Your task to perform on an android device: Show me productivity apps on the Play Store Image 0: 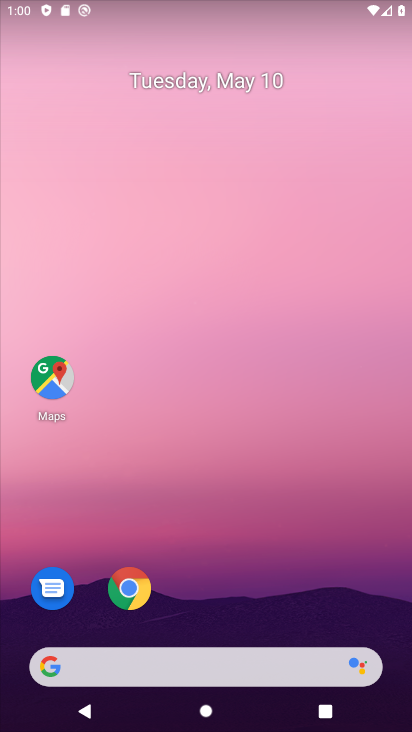
Step 0: drag from (245, 691) to (260, 123)
Your task to perform on an android device: Show me productivity apps on the Play Store Image 1: 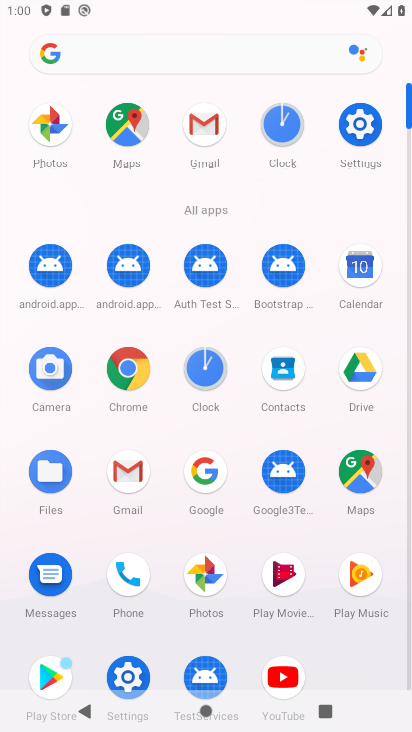
Step 1: click (49, 674)
Your task to perform on an android device: Show me productivity apps on the Play Store Image 2: 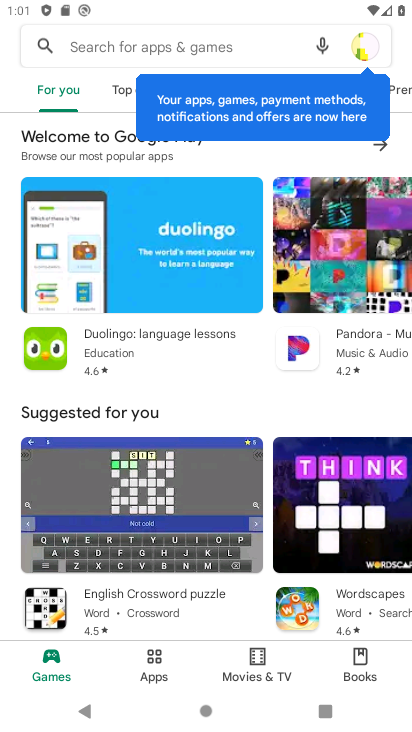
Step 2: click (186, 54)
Your task to perform on an android device: Show me productivity apps on the Play Store Image 3: 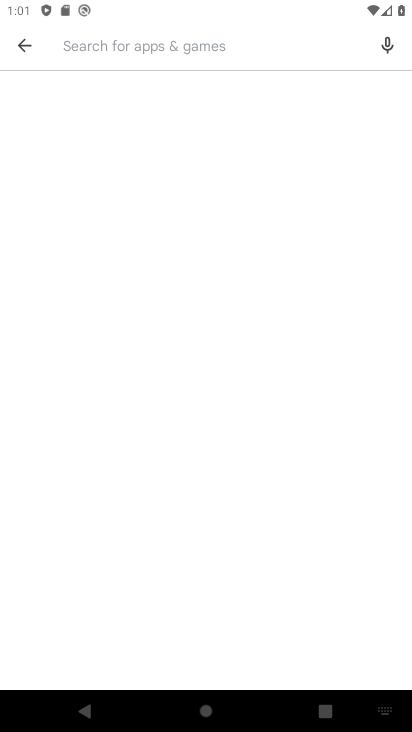
Step 3: click (391, 651)
Your task to perform on an android device: Show me productivity apps on the Play Store Image 4: 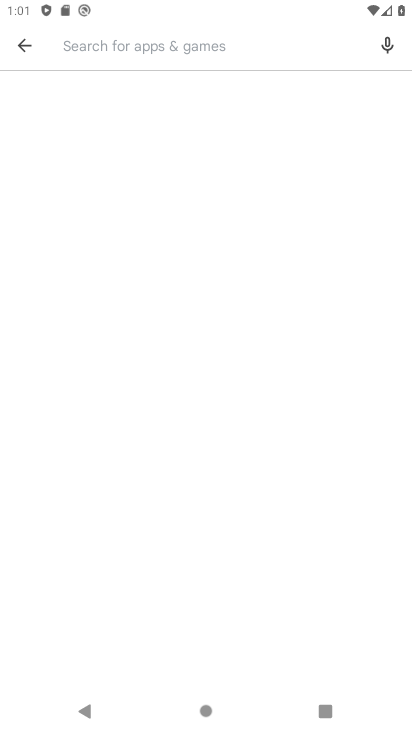
Step 4: click (264, 47)
Your task to perform on an android device: Show me productivity apps on the Play Store Image 5: 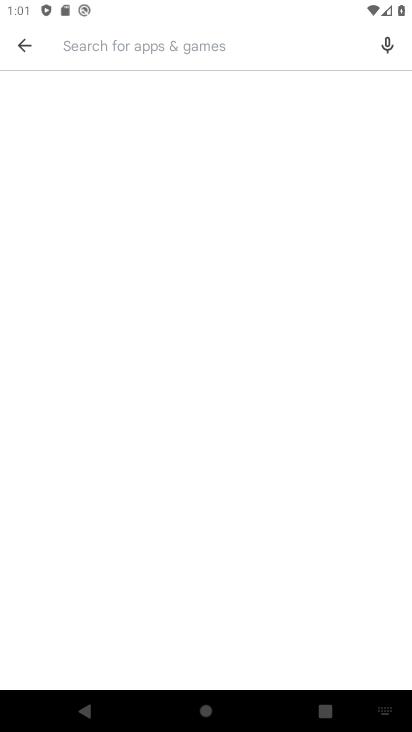
Step 5: drag from (368, 718) to (374, 664)
Your task to perform on an android device: Show me productivity apps on the Play Store Image 6: 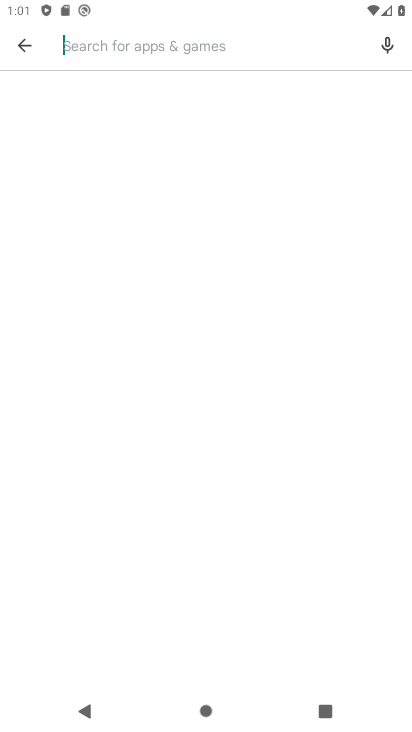
Step 6: click (387, 720)
Your task to perform on an android device: Show me productivity apps on the Play Store Image 7: 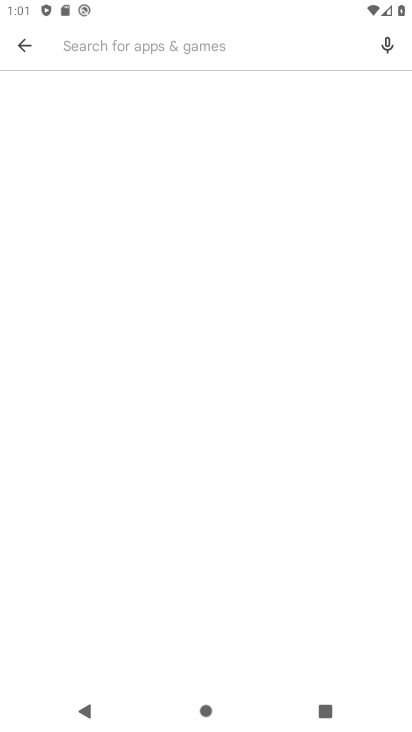
Step 7: drag from (383, 705) to (411, 594)
Your task to perform on an android device: Show me productivity apps on the Play Store Image 8: 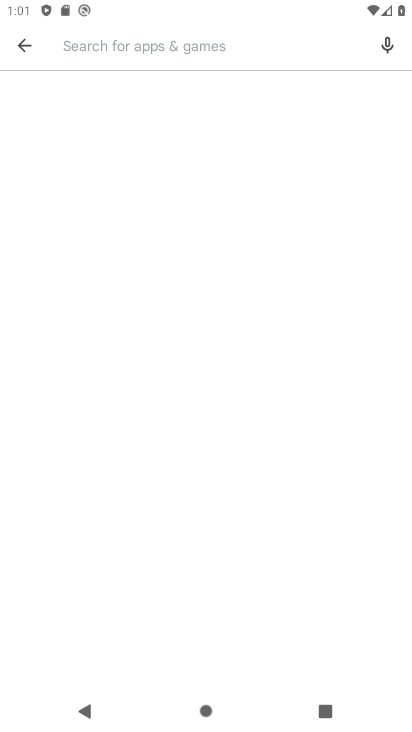
Step 8: drag from (403, 714) to (409, 507)
Your task to perform on an android device: Show me productivity apps on the Play Store Image 9: 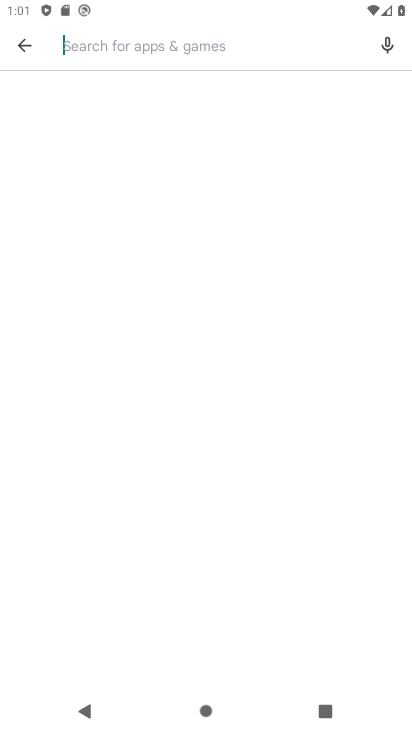
Step 9: click (182, 49)
Your task to perform on an android device: Show me productivity apps on the Play Store Image 10: 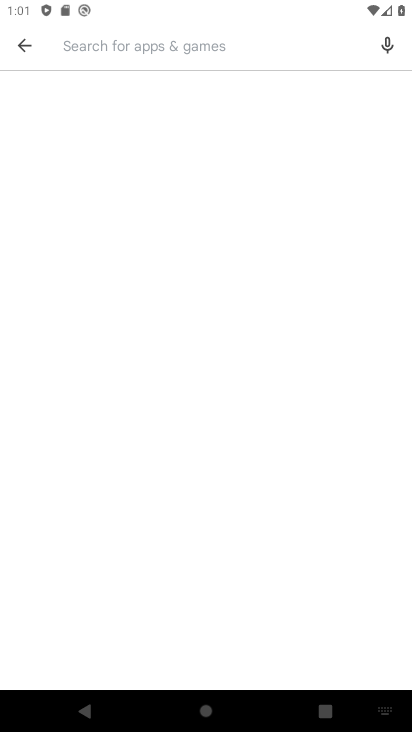
Step 10: click (378, 716)
Your task to perform on an android device: Show me productivity apps on the Play Store Image 11: 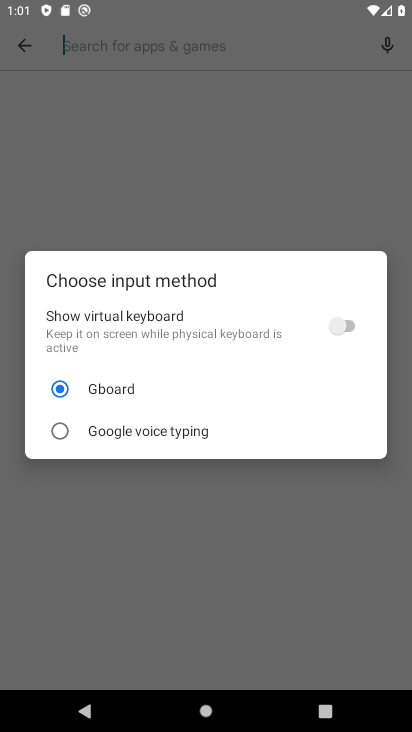
Step 11: click (345, 325)
Your task to perform on an android device: Show me productivity apps on the Play Store Image 12: 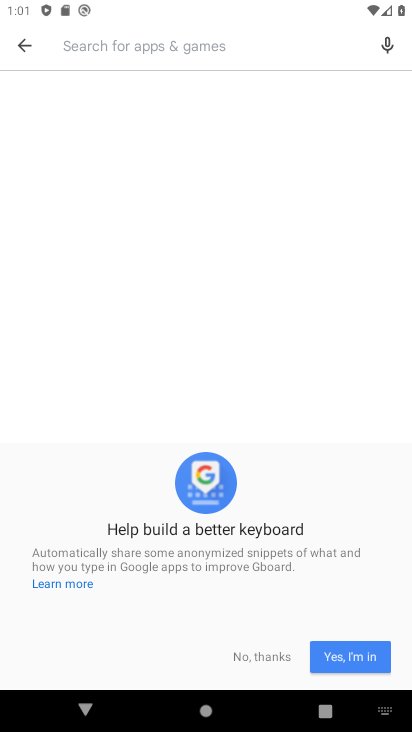
Step 12: click (250, 649)
Your task to perform on an android device: Show me productivity apps on the Play Store Image 13: 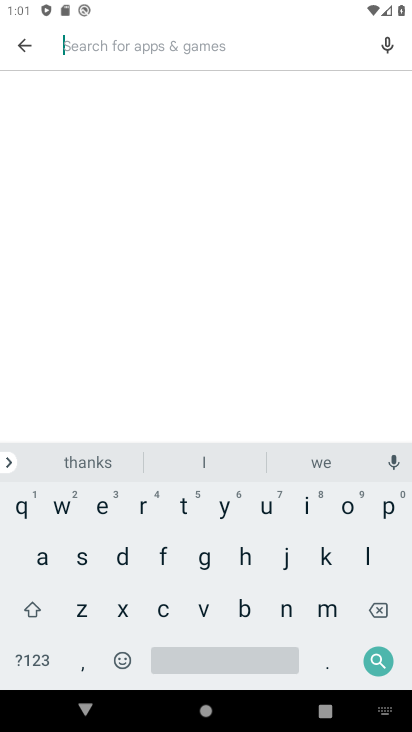
Step 13: click (387, 509)
Your task to perform on an android device: Show me productivity apps on the Play Store Image 14: 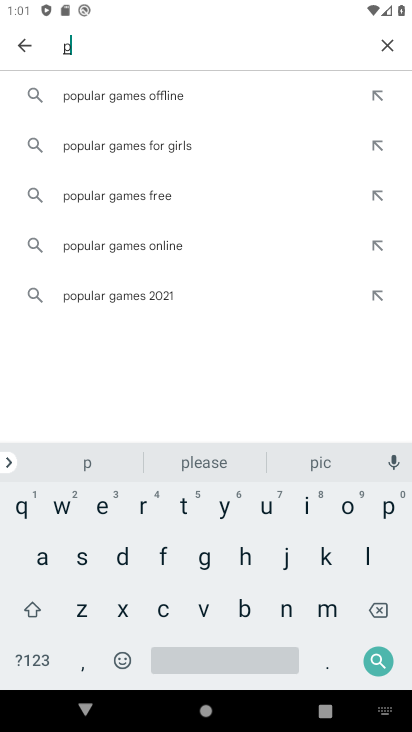
Step 14: click (142, 504)
Your task to perform on an android device: Show me productivity apps on the Play Store Image 15: 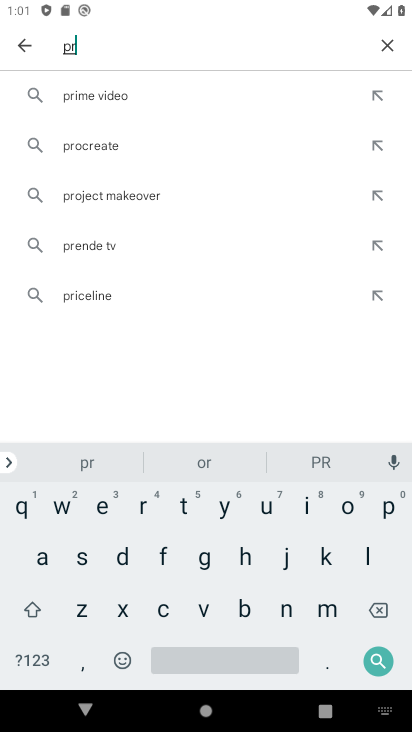
Step 15: click (343, 506)
Your task to perform on an android device: Show me productivity apps on the Play Store Image 16: 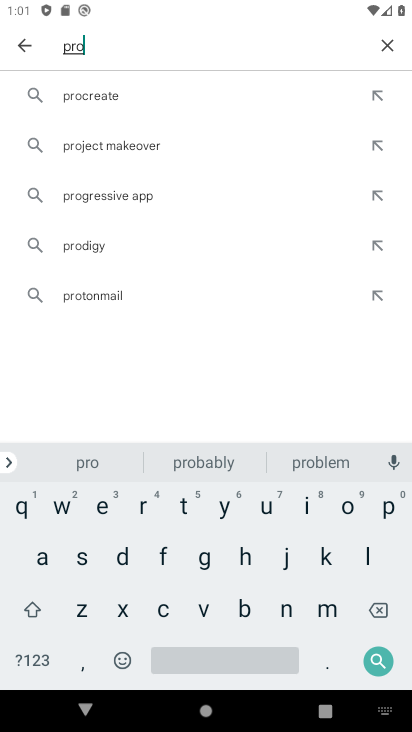
Step 16: click (120, 557)
Your task to perform on an android device: Show me productivity apps on the Play Store Image 17: 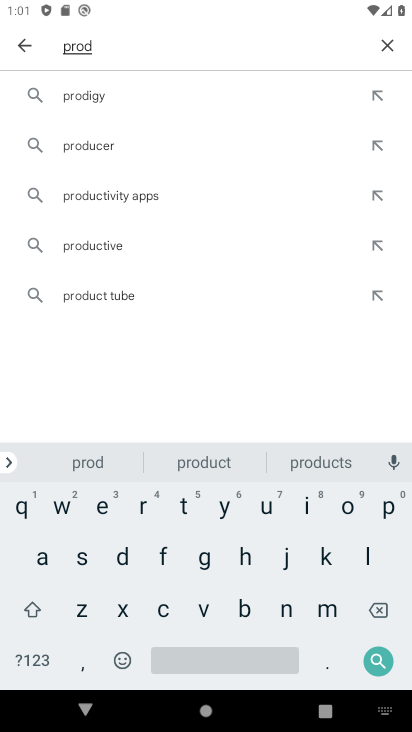
Step 17: click (267, 510)
Your task to perform on an android device: Show me productivity apps on the Play Store Image 18: 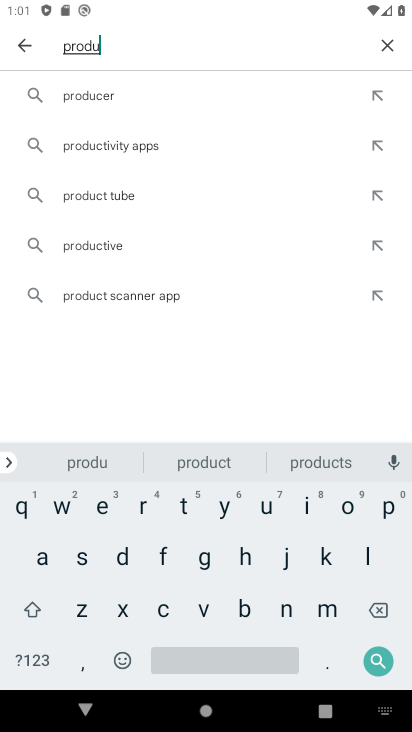
Step 18: click (142, 158)
Your task to perform on an android device: Show me productivity apps on the Play Store Image 19: 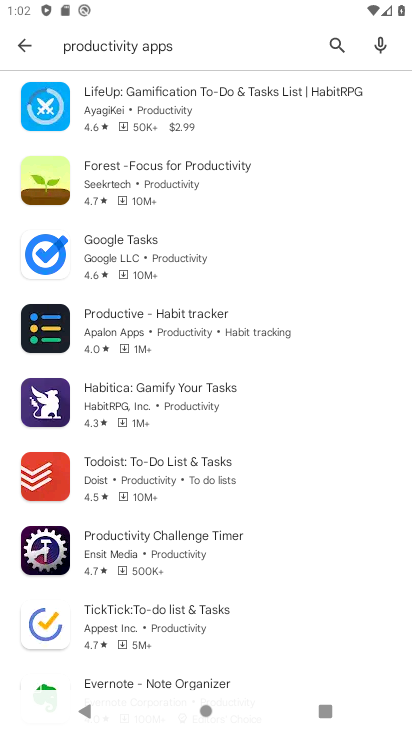
Step 19: task complete